Your task to perform on an android device: change keyboard looks Image 0: 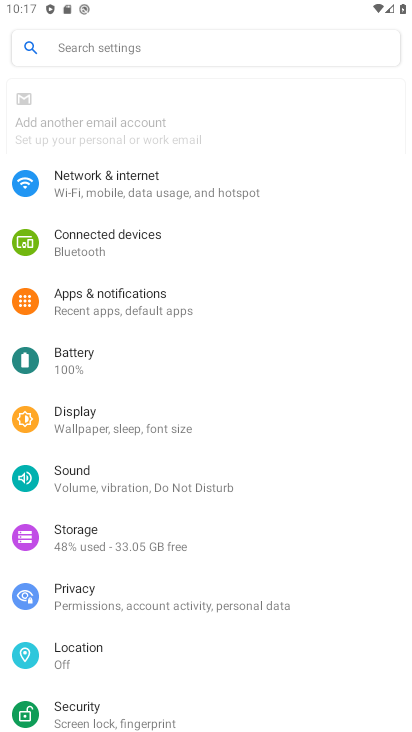
Step 0: drag from (183, 695) to (103, 86)
Your task to perform on an android device: change keyboard looks Image 1: 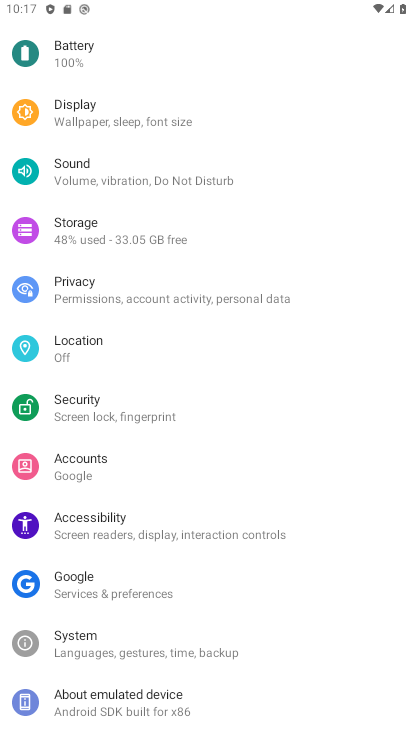
Step 1: click (149, 653)
Your task to perform on an android device: change keyboard looks Image 2: 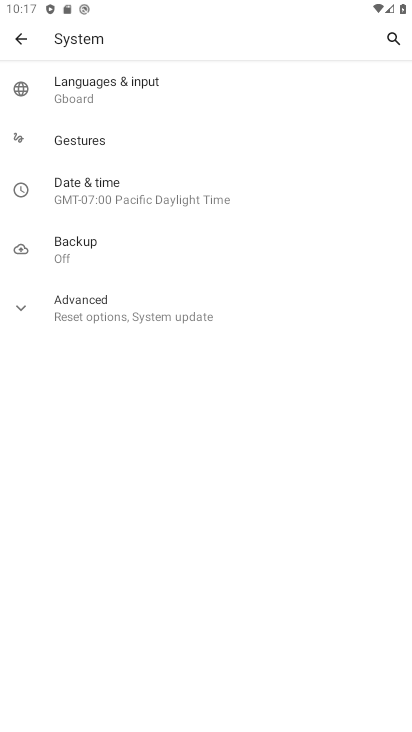
Step 2: click (60, 81)
Your task to perform on an android device: change keyboard looks Image 3: 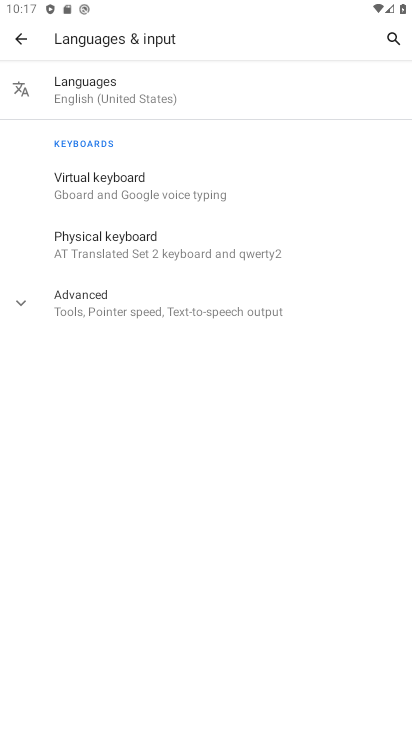
Step 3: click (143, 191)
Your task to perform on an android device: change keyboard looks Image 4: 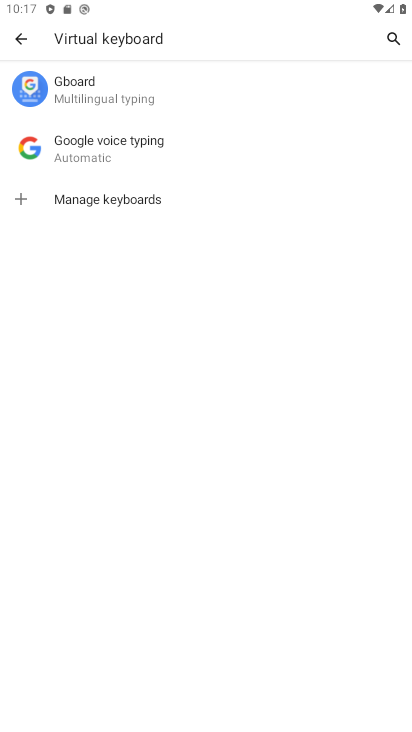
Step 4: click (99, 93)
Your task to perform on an android device: change keyboard looks Image 5: 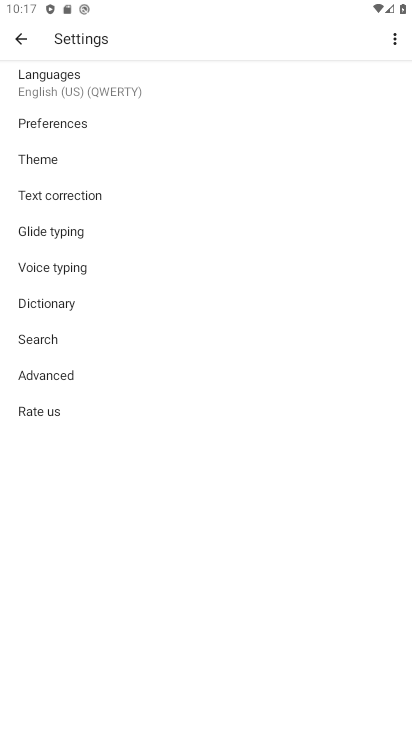
Step 5: drag from (78, 155) to (8, 155)
Your task to perform on an android device: change keyboard looks Image 6: 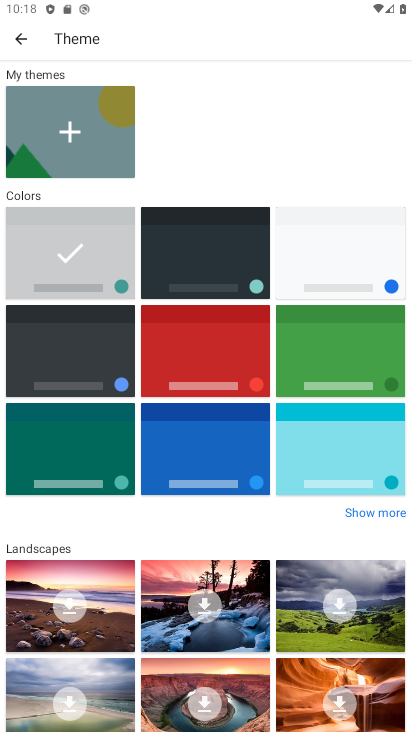
Step 6: click (171, 441)
Your task to perform on an android device: change keyboard looks Image 7: 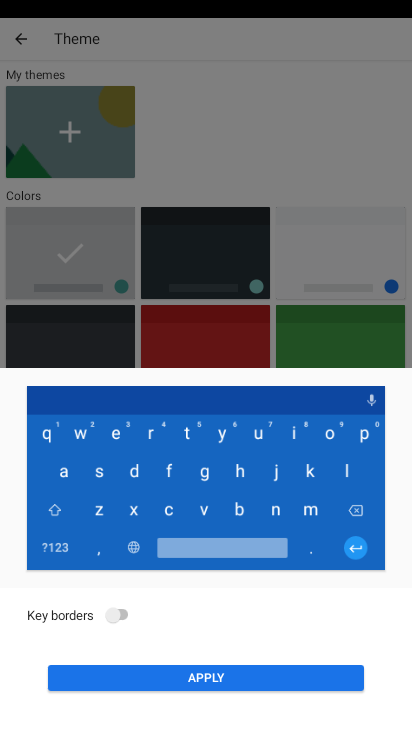
Step 7: click (114, 613)
Your task to perform on an android device: change keyboard looks Image 8: 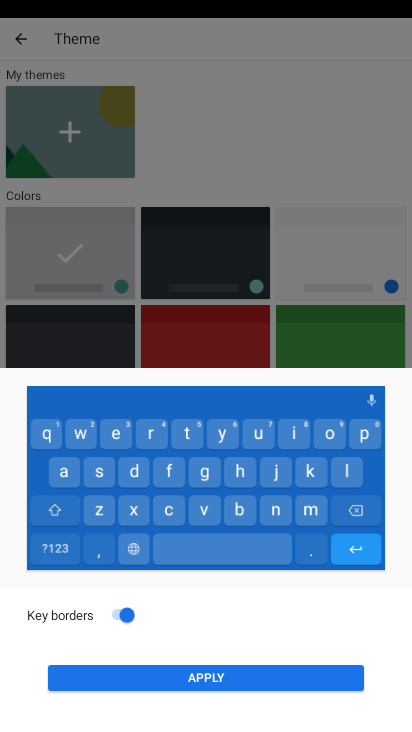
Step 8: click (196, 686)
Your task to perform on an android device: change keyboard looks Image 9: 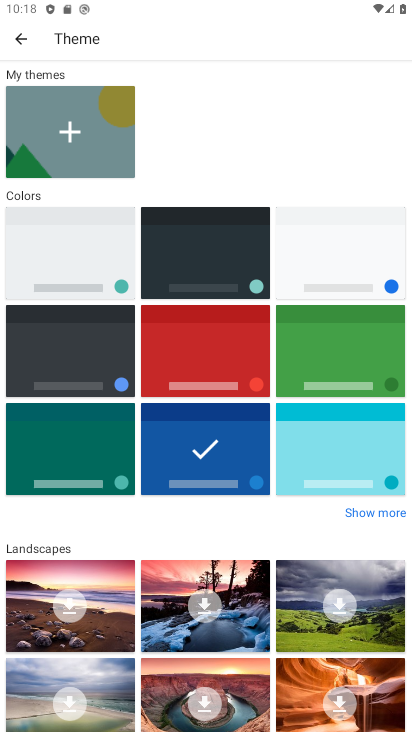
Step 9: task complete